Your task to perform on an android device: choose inbox layout in the gmail app Image 0: 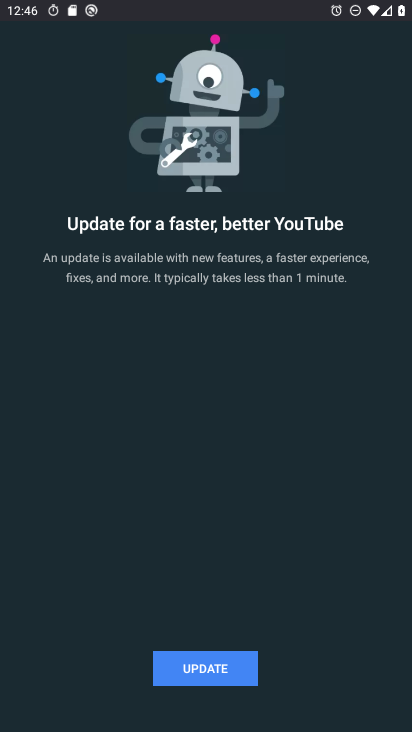
Step 0: press home button
Your task to perform on an android device: choose inbox layout in the gmail app Image 1: 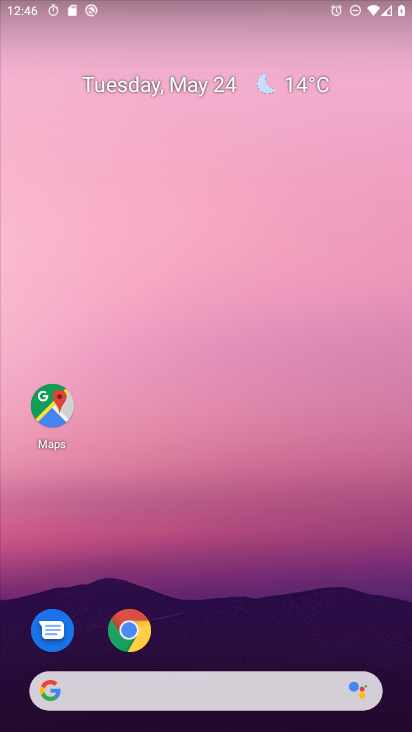
Step 1: drag from (355, 620) to (392, 107)
Your task to perform on an android device: choose inbox layout in the gmail app Image 2: 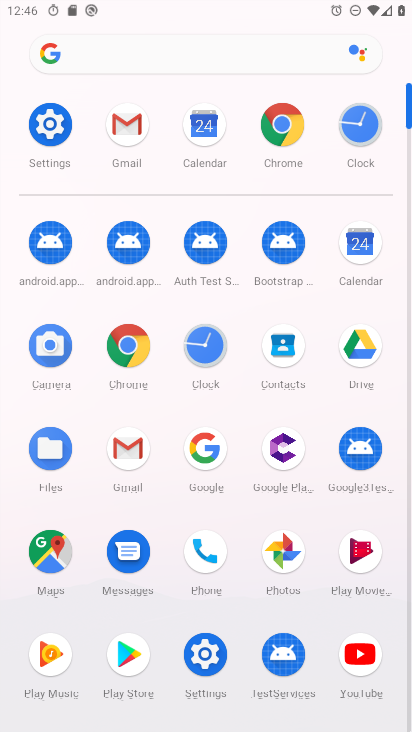
Step 2: click (126, 445)
Your task to perform on an android device: choose inbox layout in the gmail app Image 3: 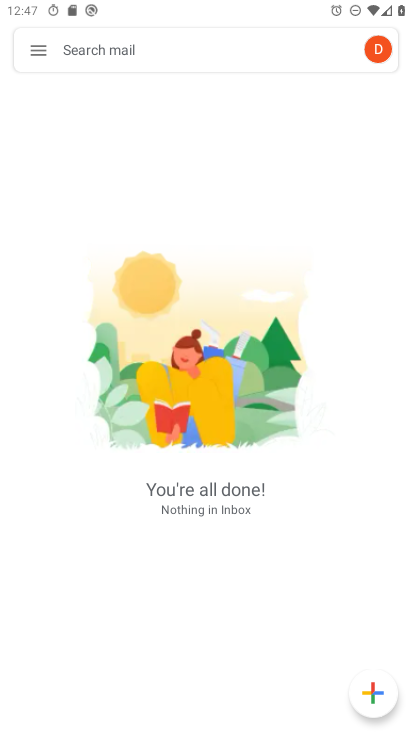
Step 3: click (38, 46)
Your task to perform on an android device: choose inbox layout in the gmail app Image 4: 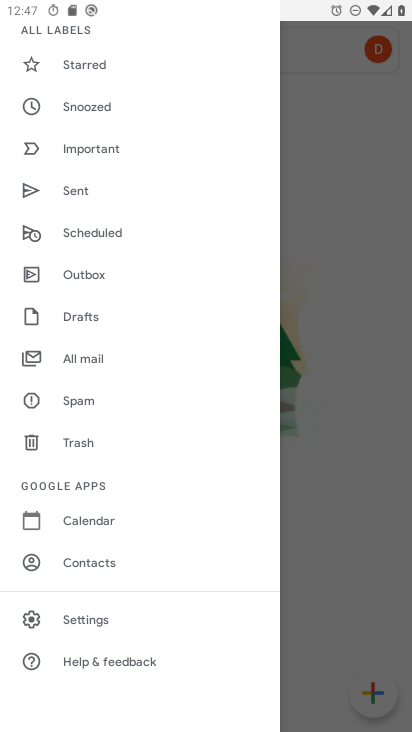
Step 4: drag from (114, 112) to (134, 569)
Your task to perform on an android device: choose inbox layout in the gmail app Image 5: 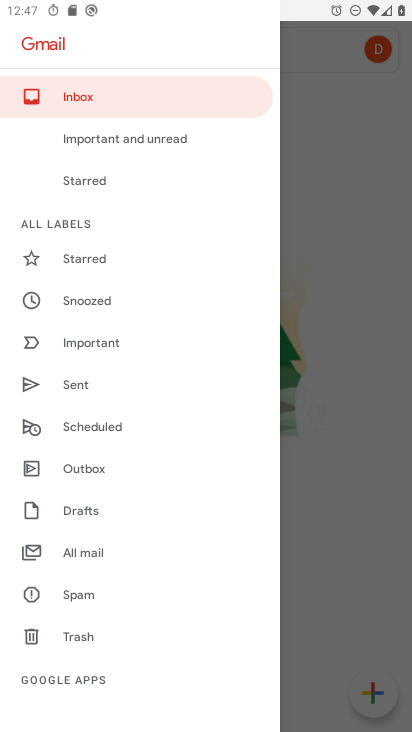
Step 5: drag from (117, 627) to (121, 276)
Your task to perform on an android device: choose inbox layout in the gmail app Image 6: 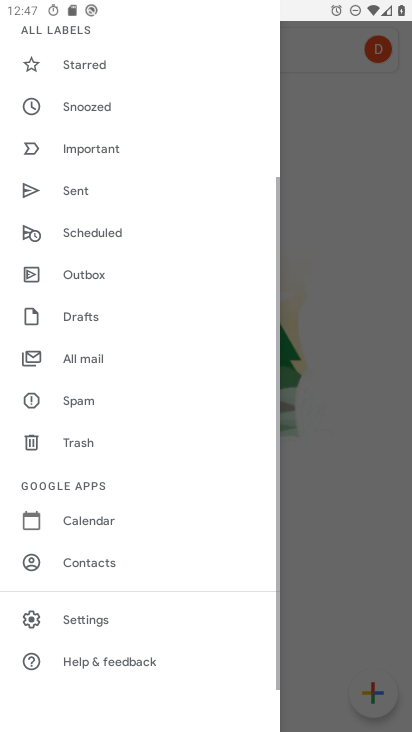
Step 6: click (99, 618)
Your task to perform on an android device: choose inbox layout in the gmail app Image 7: 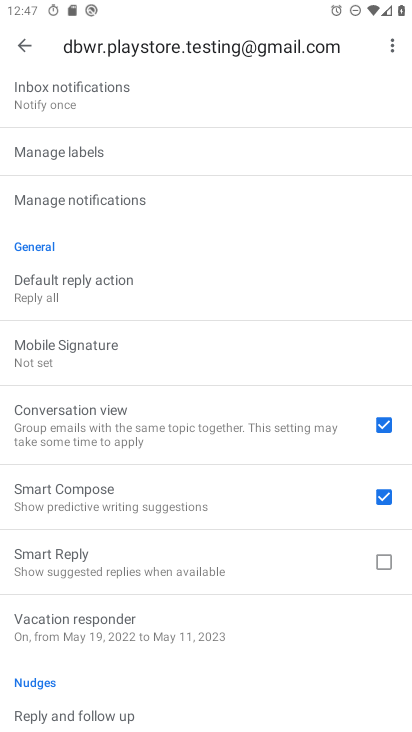
Step 7: drag from (201, 235) to (247, 610)
Your task to perform on an android device: choose inbox layout in the gmail app Image 8: 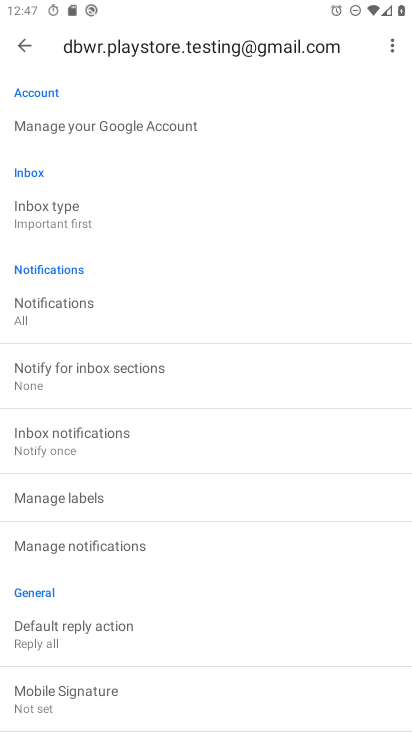
Step 8: click (137, 222)
Your task to perform on an android device: choose inbox layout in the gmail app Image 9: 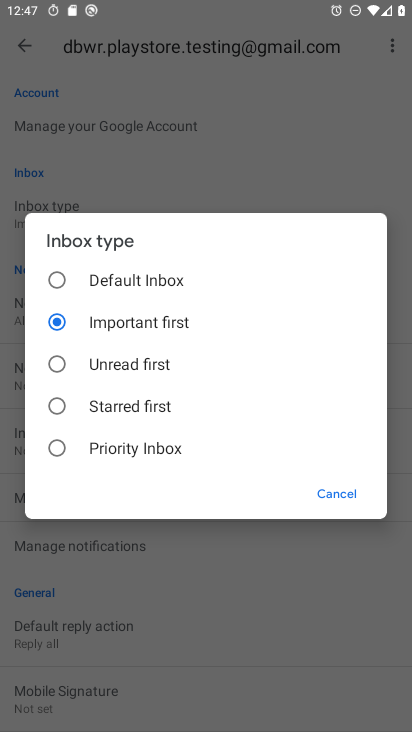
Step 9: click (104, 442)
Your task to perform on an android device: choose inbox layout in the gmail app Image 10: 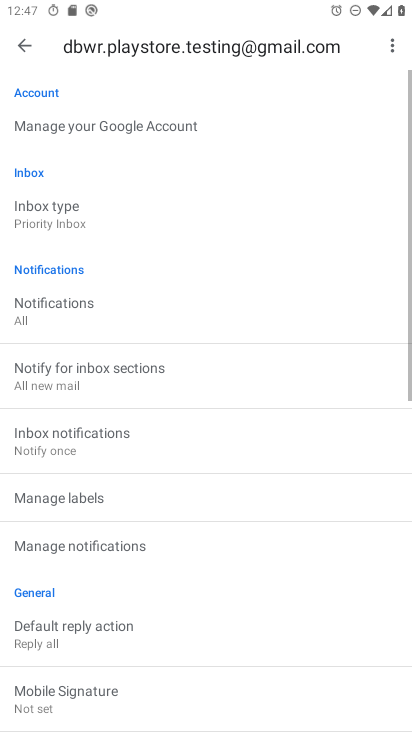
Step 10: task complete